Your task to perform on an android device: Open notification settings Image 0: 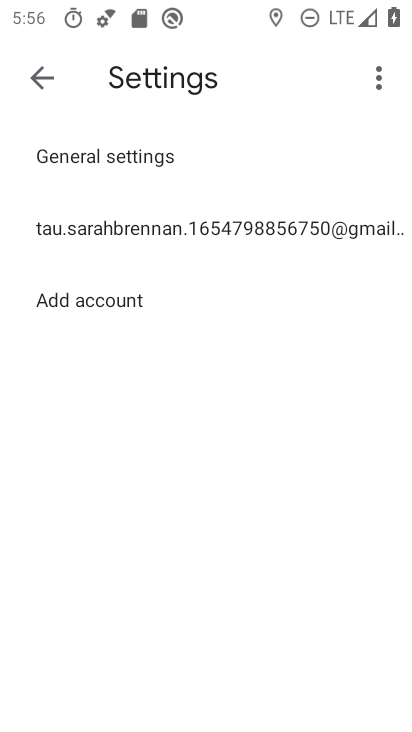
Step 0: press back button
Your task to perform on an android device: Open notification settings Image 1: 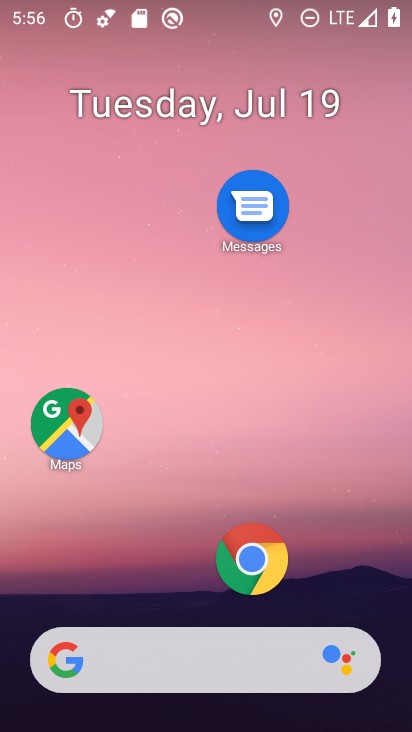
Step 1: drag from (143, 584) to (228, 23)
Your task to perform on an android device: Open notification settings Image 2: 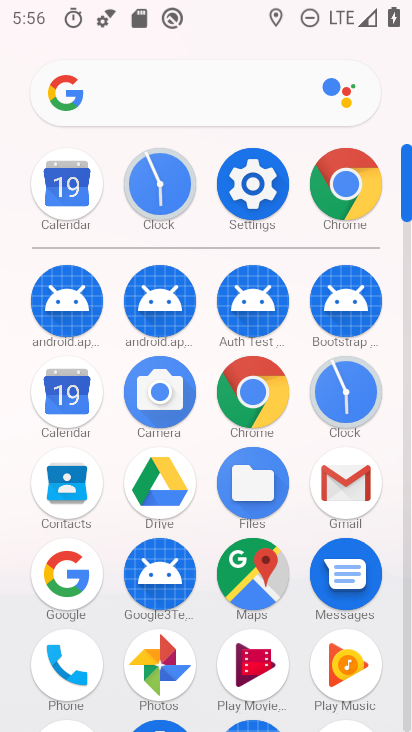
Step 2: click (257, 197)
Your task to perform on an android device: Open notification settings Image 3: 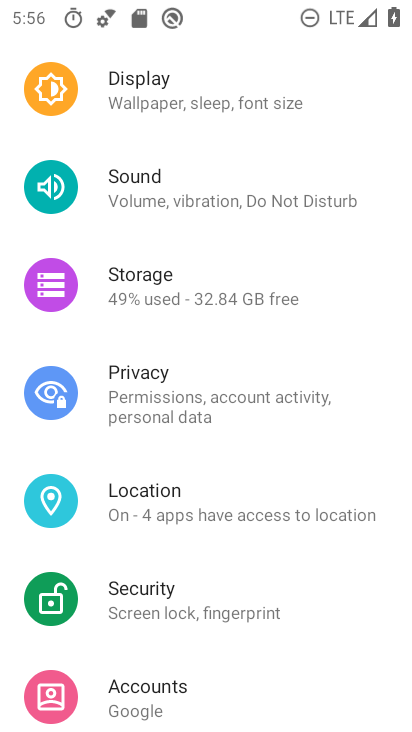
Step 3: drag from (237, 180) to (170, 731)
Your task to perform on an android device: Open notification settings Image 4: 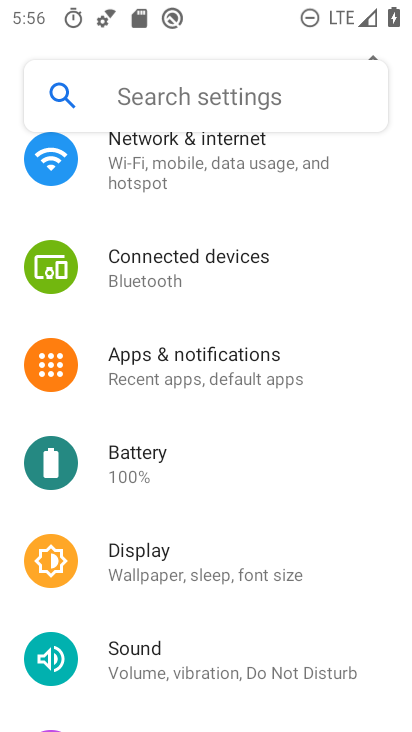
Step 4: drag from (285, 301) to (196, 717)
Your task to perform on an android device: Open notification settings Image 5: 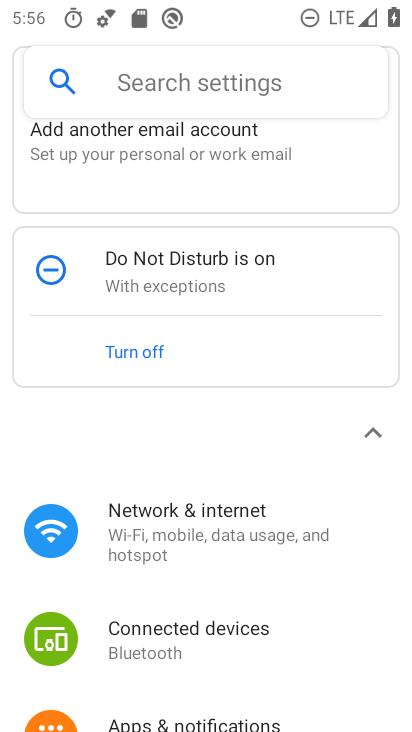
Step 5: drag from (203, 674) to (263, 312)
Your task to perform on an android device: Open notification settings Image 6: 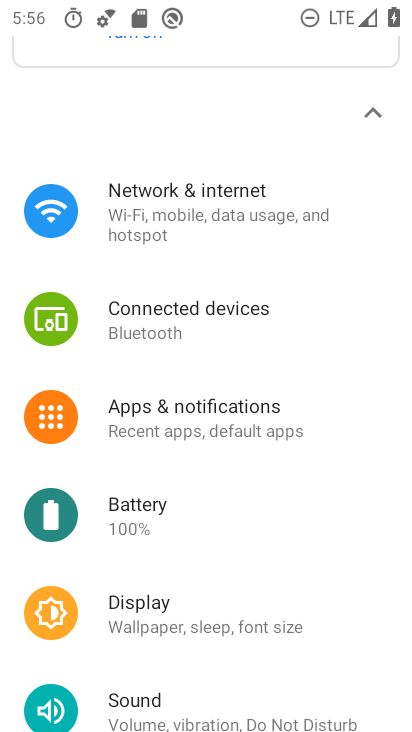
Step 6: click (217, 406)
Your task to perform on an android device: Open notification settings Image 7: 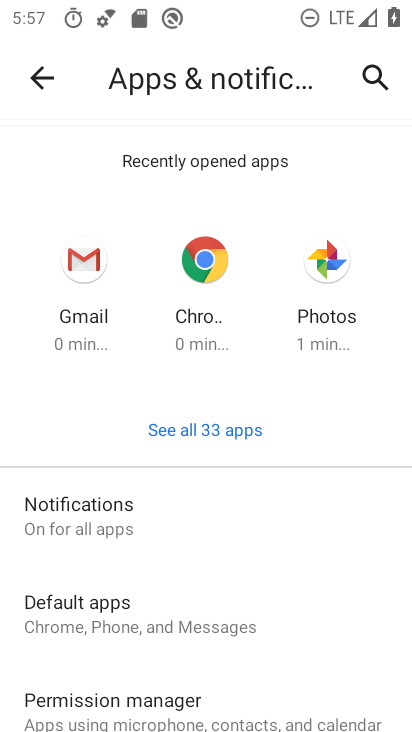
Step 7: task complete